Your task to perform on an android device: Add "macbook pro 15 inch" to the cart on walmart Image 0: 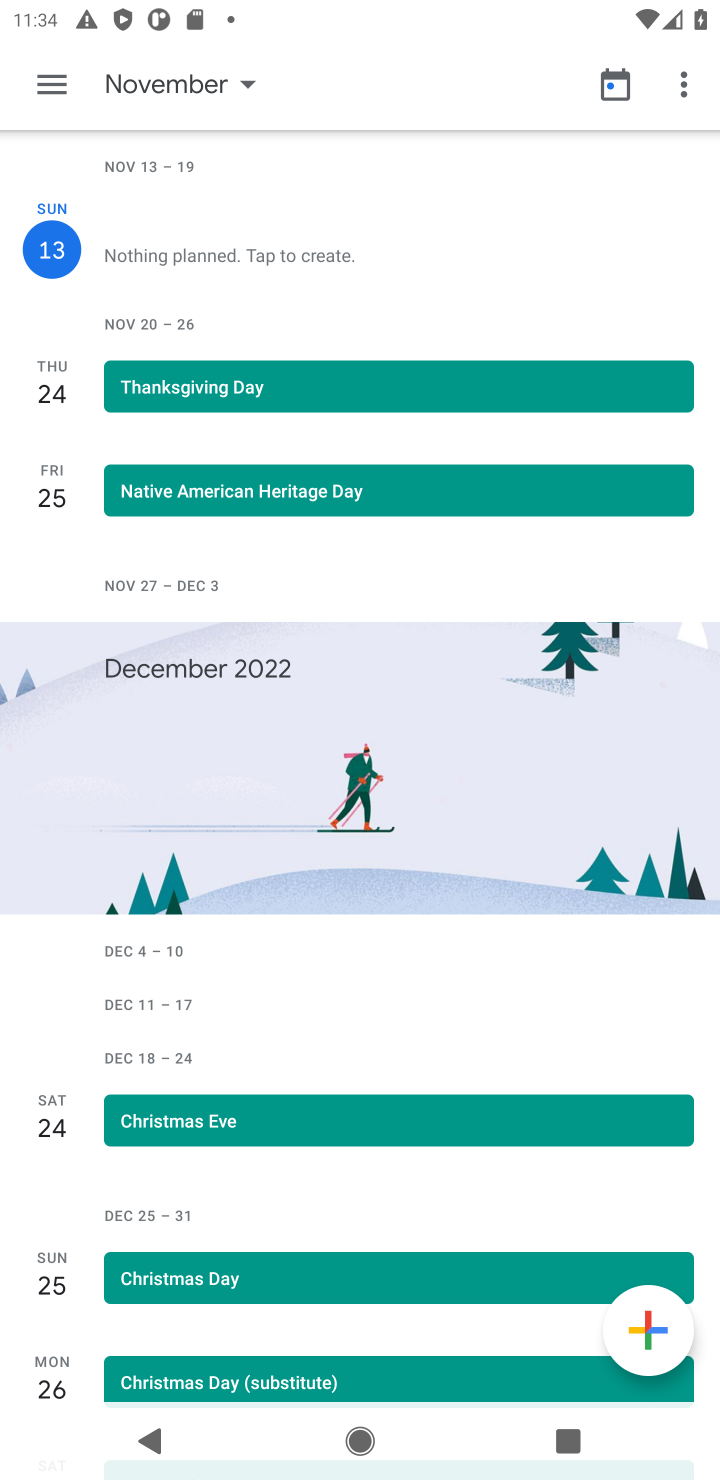
Step 0: press home button
Your task to perform on an android device: Add "macbook pro 15 inch" to the cart on walmart Image 1: 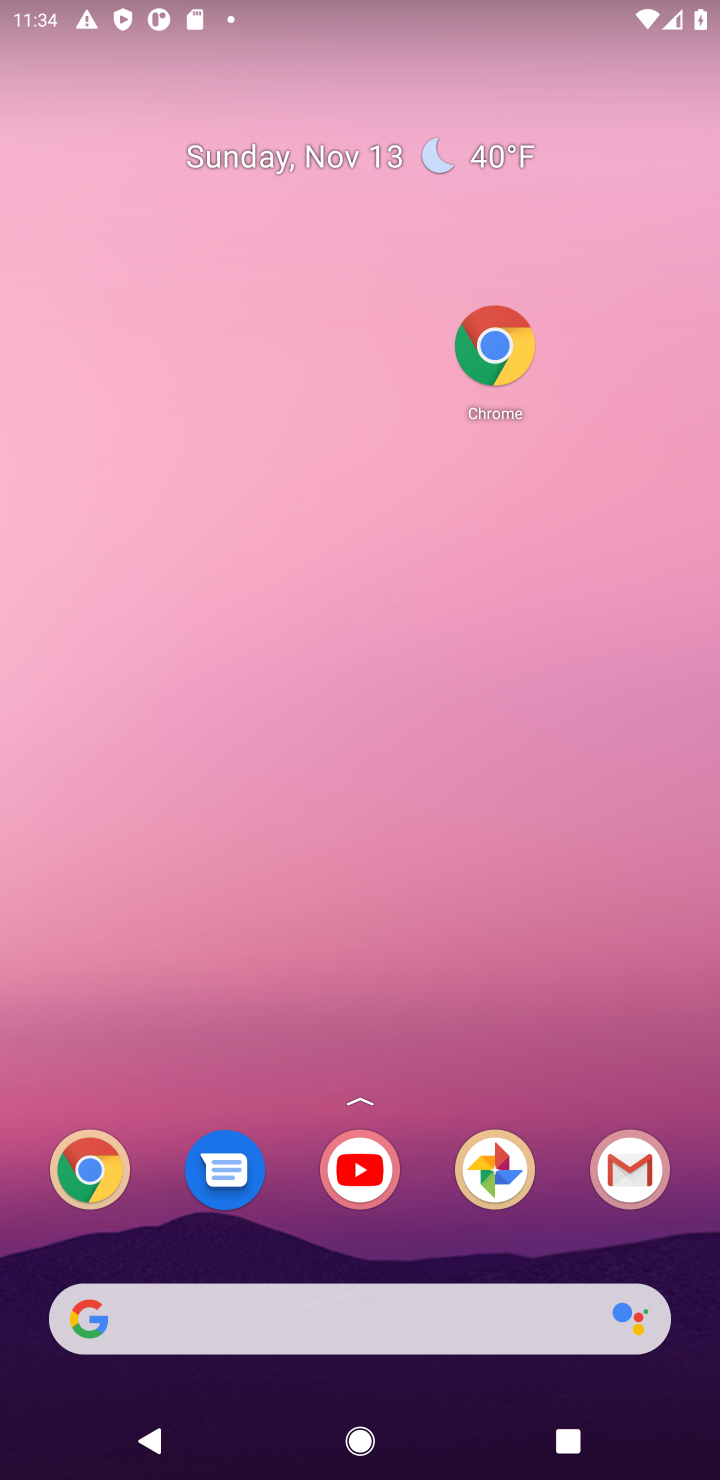
Step 1: drag from (245, 1352) to (194, 181)
Your task to perform on an android device: Add "macbook pro 15 inch" to the cart on walmart Image 2: 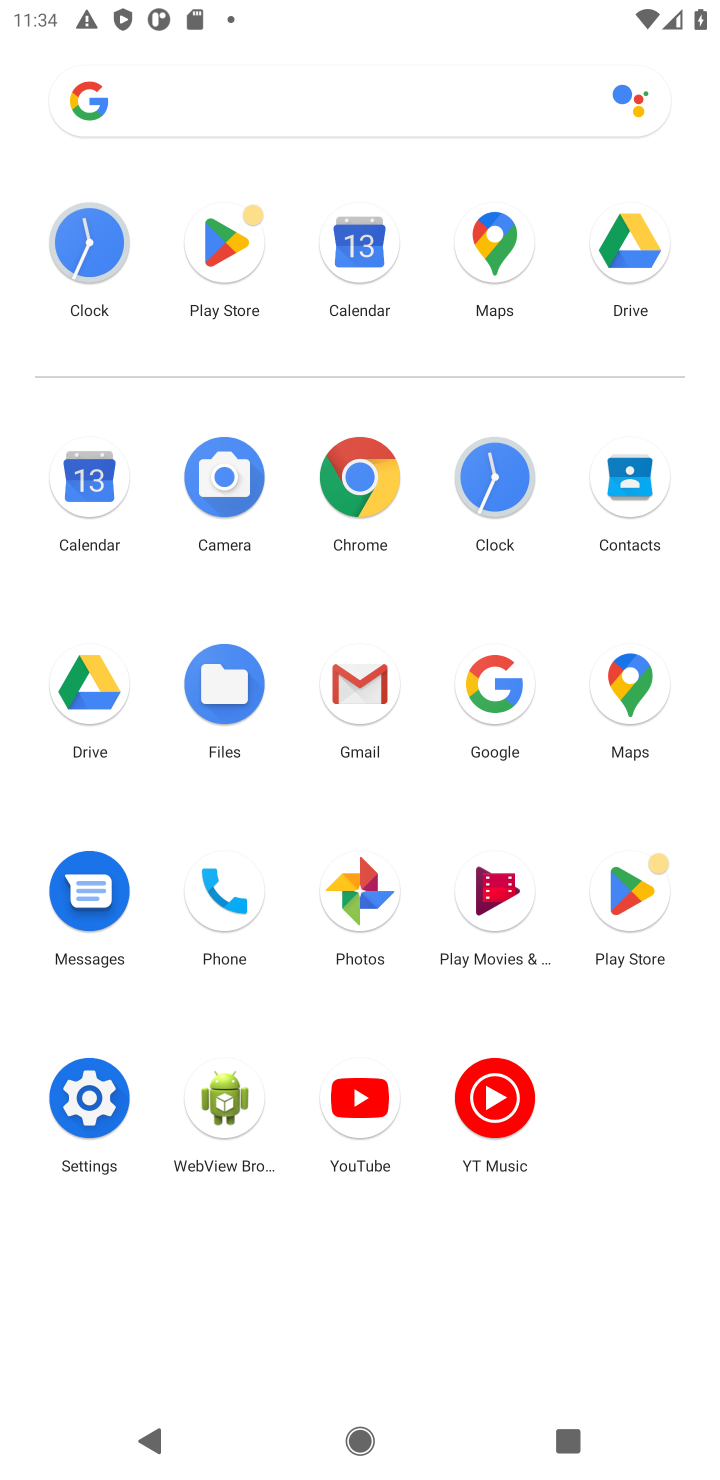
Step 2: click (377, 461)
Your task to perform on an android device: Add "macbook pro 15 inch" to the cart on walmart Image 3: 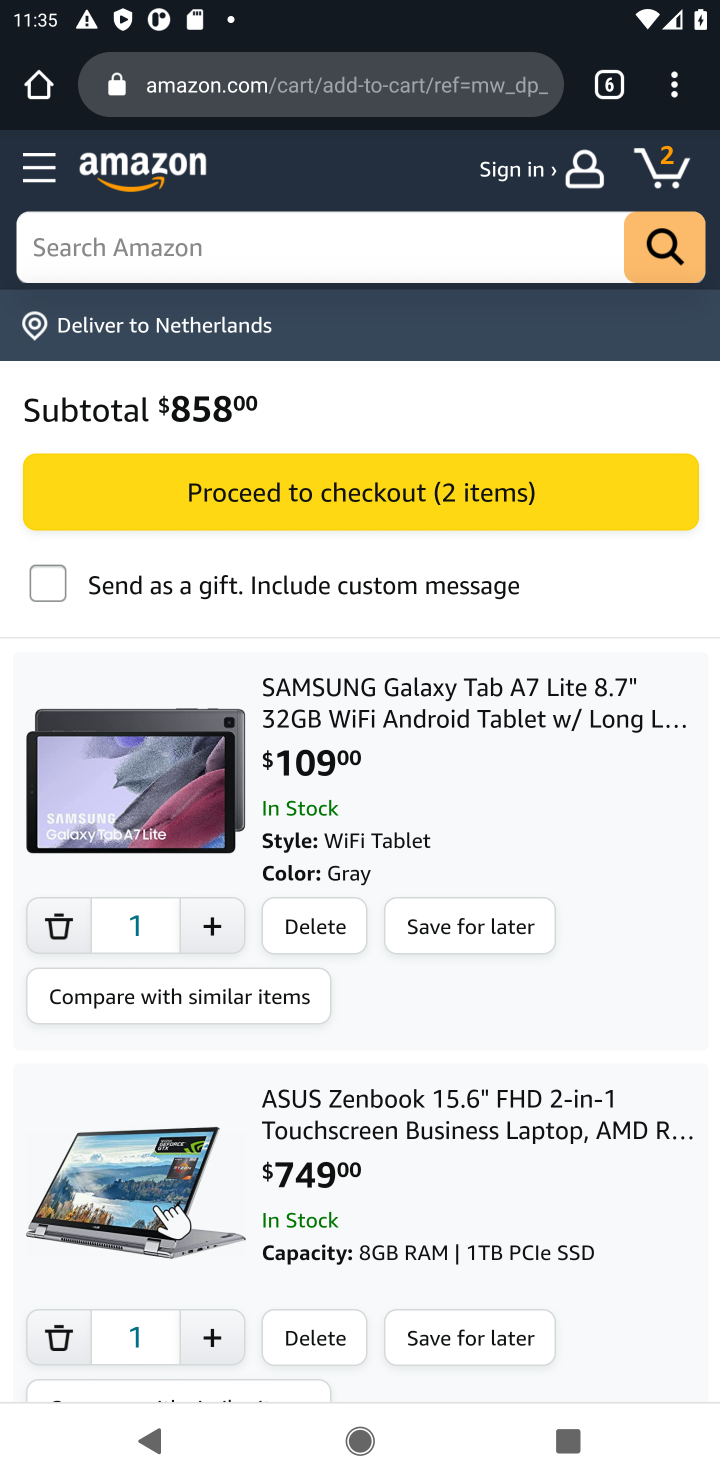
Step 3: click (415, 37)
Your task to perform on an android device: Add "macbook pro 15 inch" to the cart on walmart Image 4: 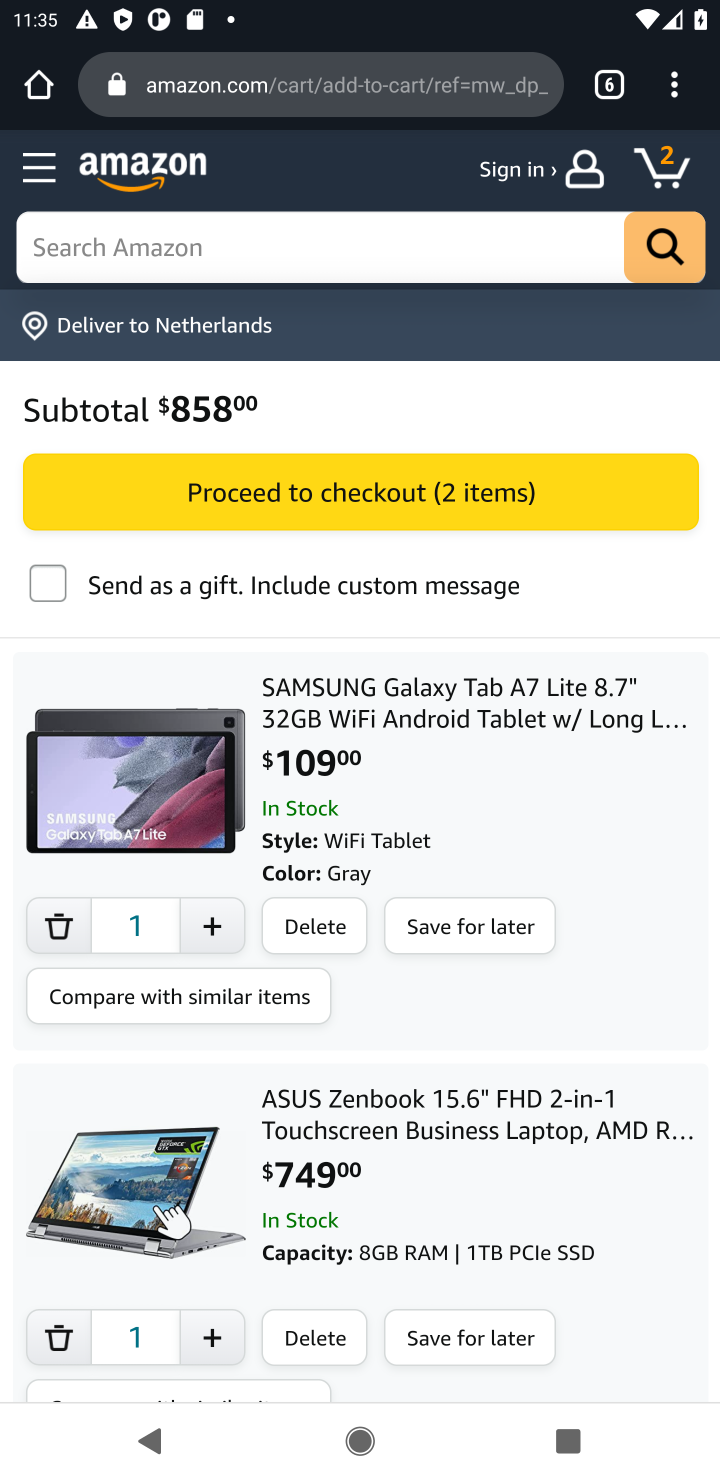
Step 4: click (412, 89)
Your task to perform on an android device: Add "macbook pro 15 inch" to the cart on walmart Image 5: 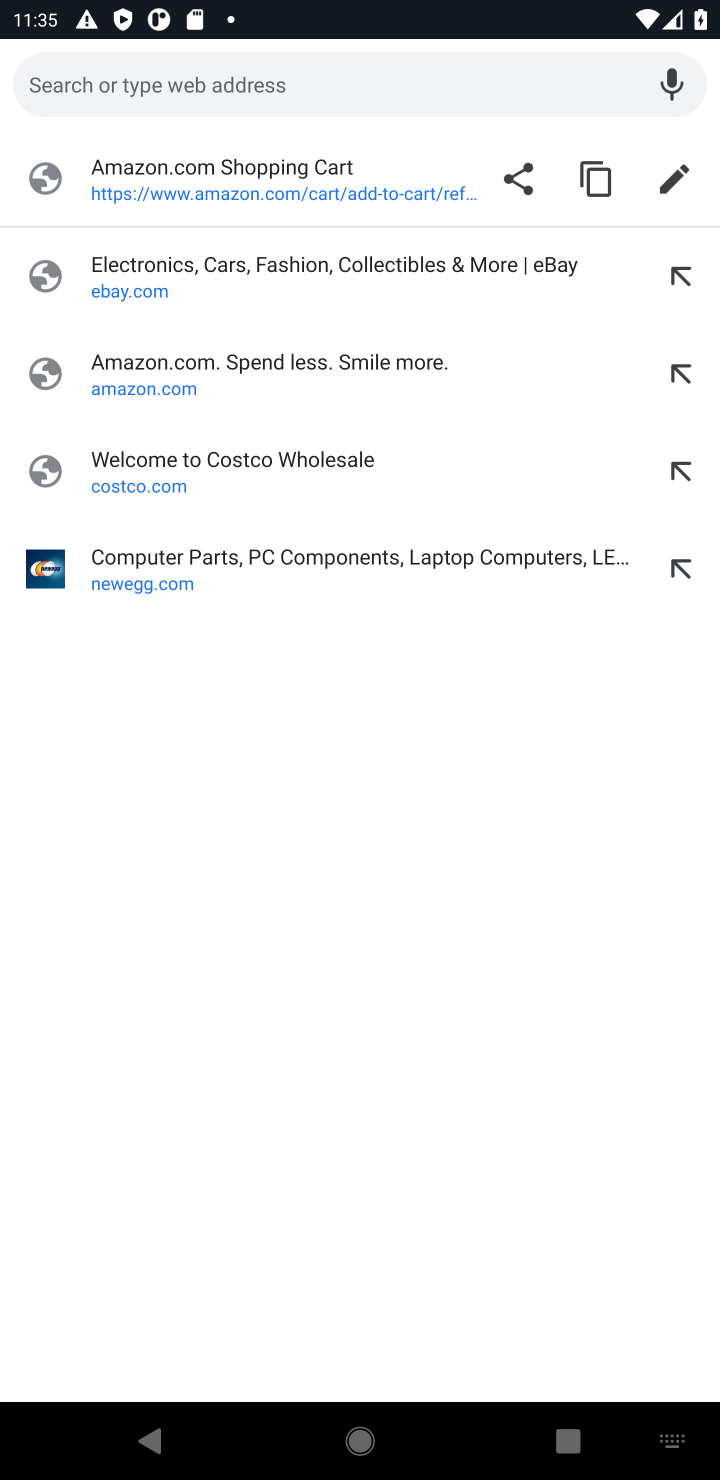
Step 5: type "walmart"
Your task to perform on an android device: Add "macbook pro 15 inch" to the cart on walmart Image 6: 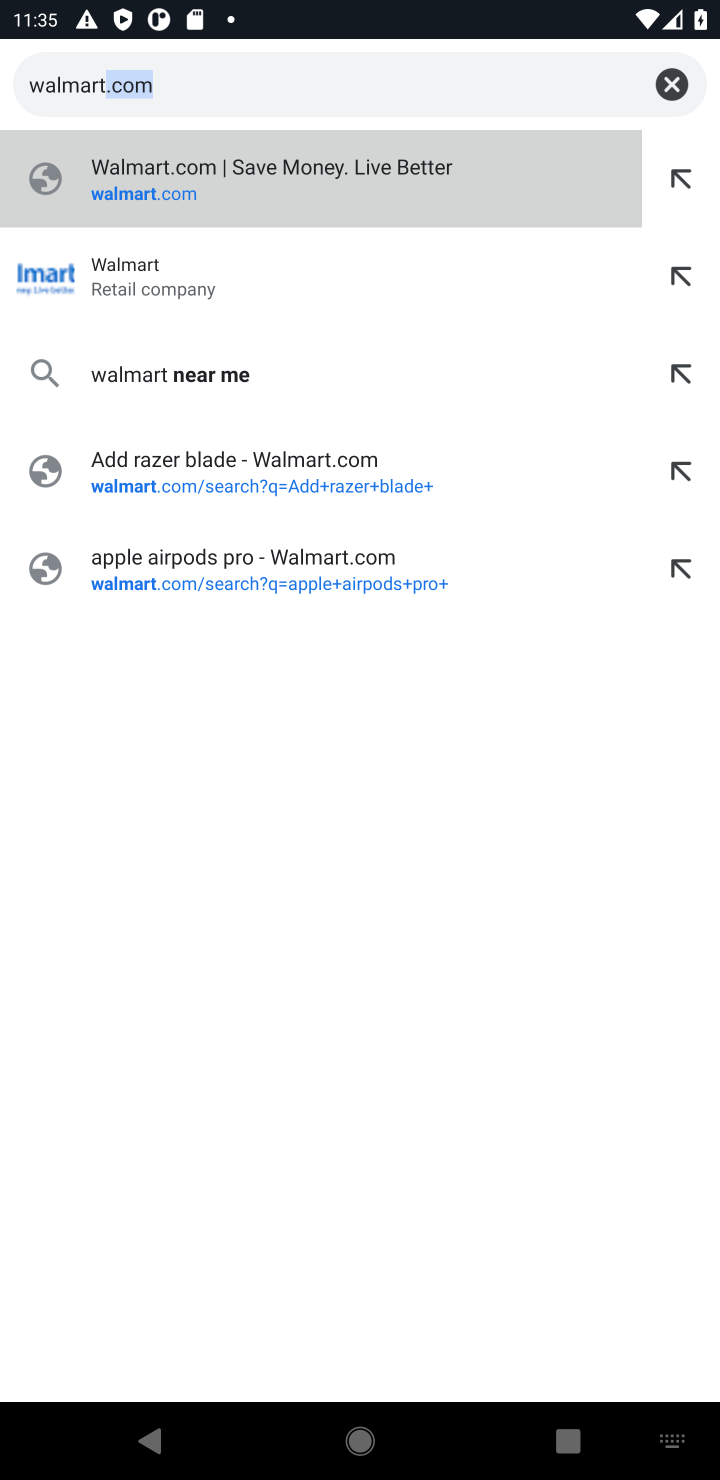
Step 6: press enter
Your task to perform on an android device: Add "macbook pro 15 inch" to the cart on walmart Image 7: 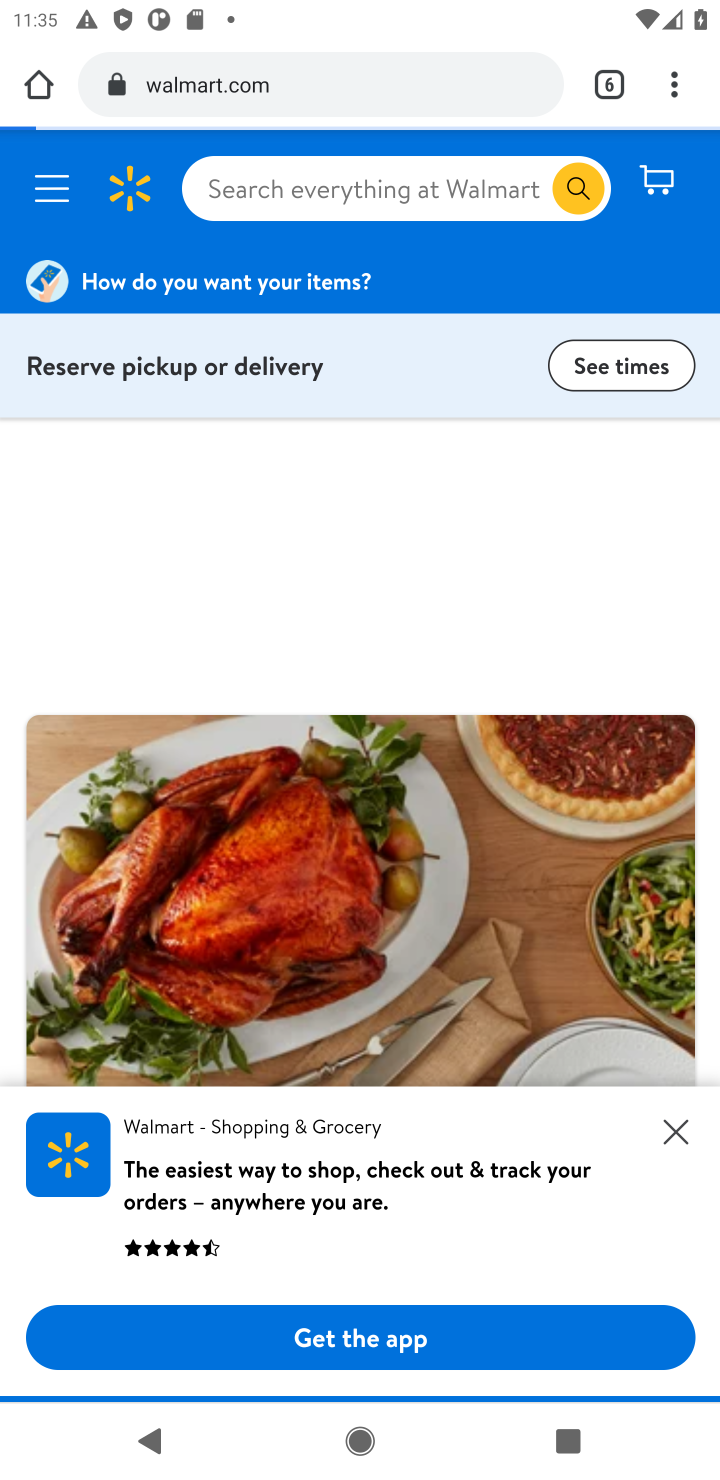
Step 7: click (431, 189)
Your task to perform on an android device: Add "macbook pro 15 inch" to the cart on walmart Image 8: 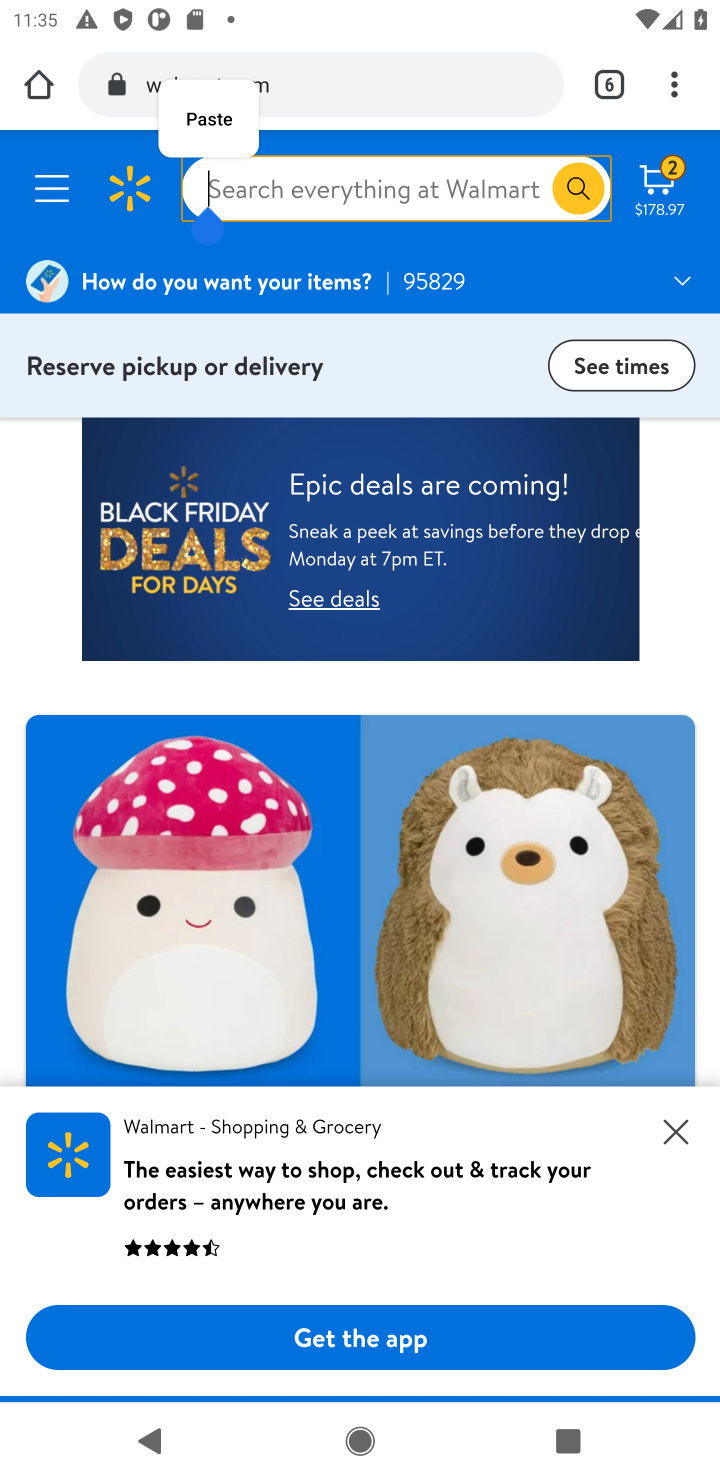
Step 8: type "macbook pro 15 inch"
Your task to perform on an android device: Add "macbook pro 15 inch" to the cart on walmart Image 9: 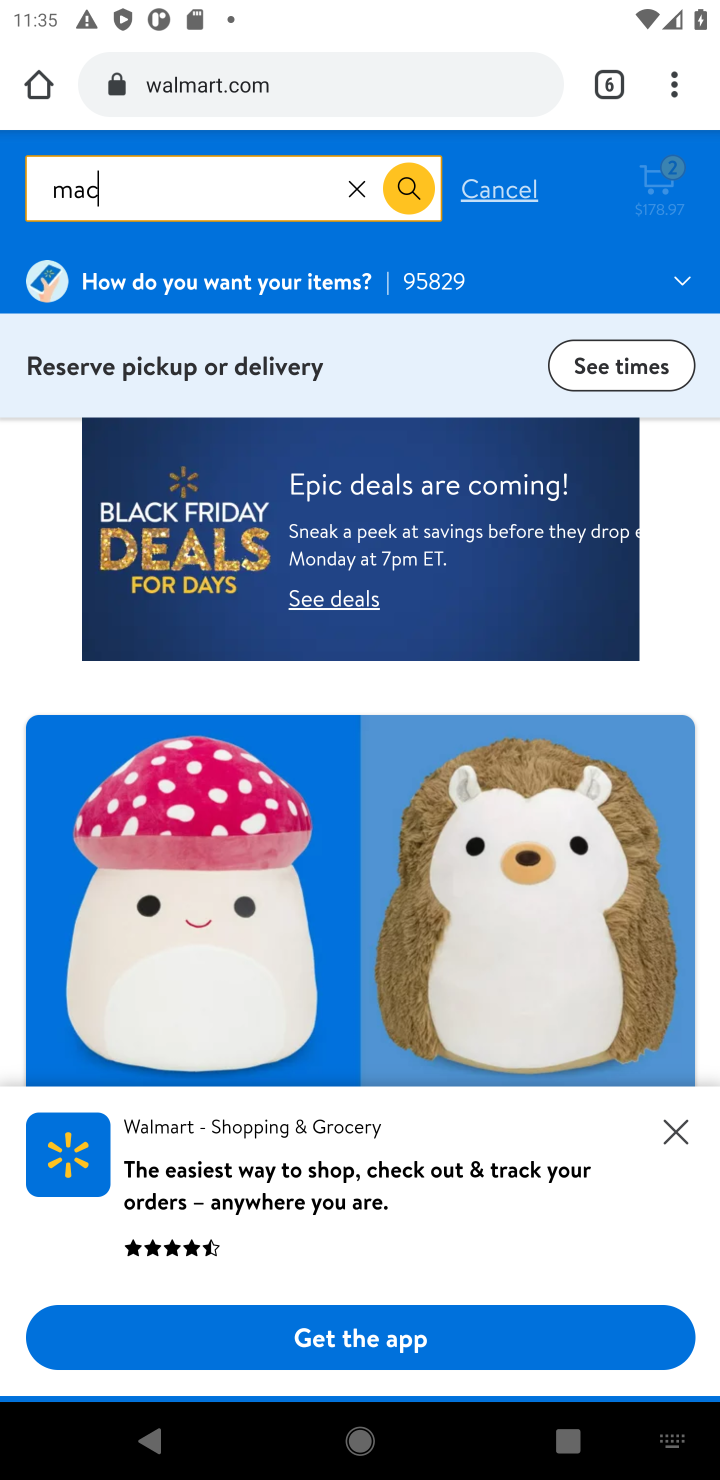
Step 9: press enter
Your task to perform on an android device: Add "macbook pro 15 inch" to the cart on walmart Image 10: 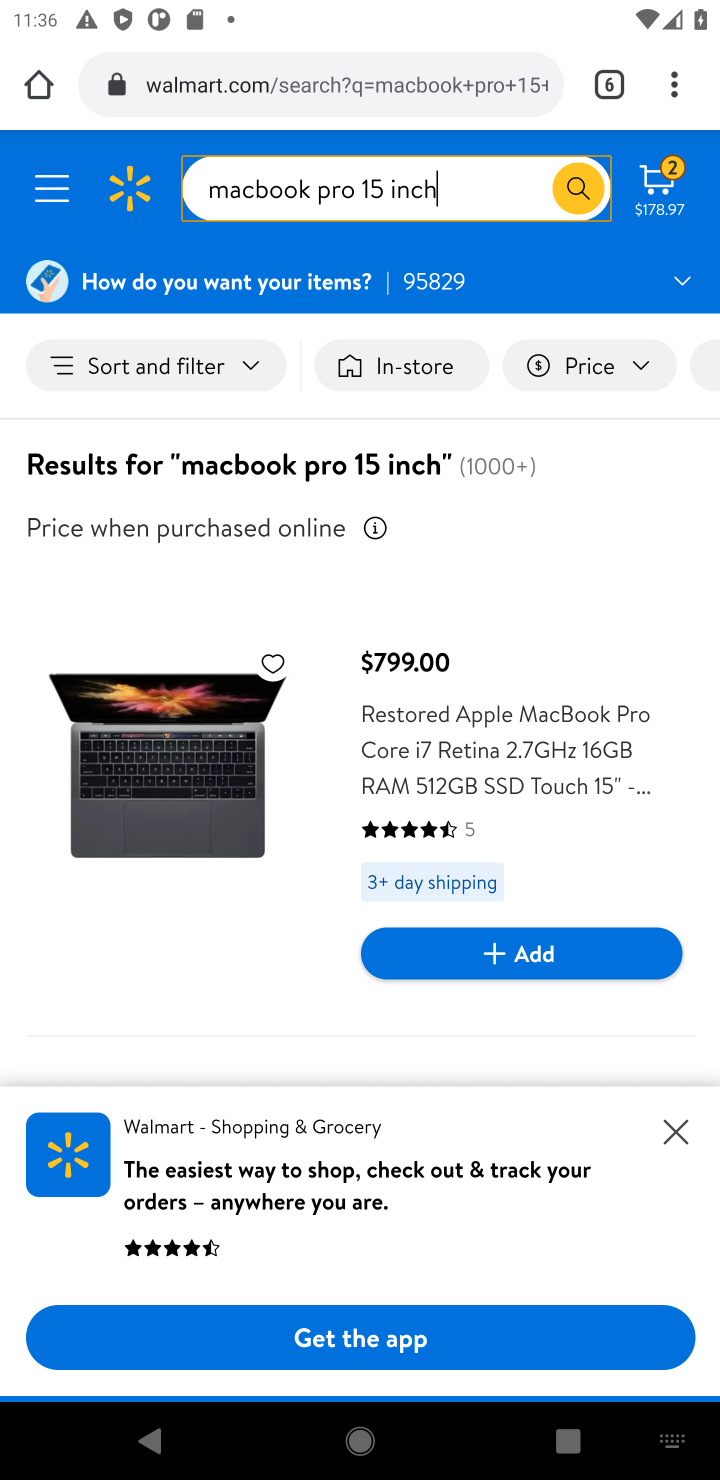
Step 10: click (565, 957)
Your task to perform on an android device: Add "macbook pro 15 inch" to the cart on walmart Image 11: 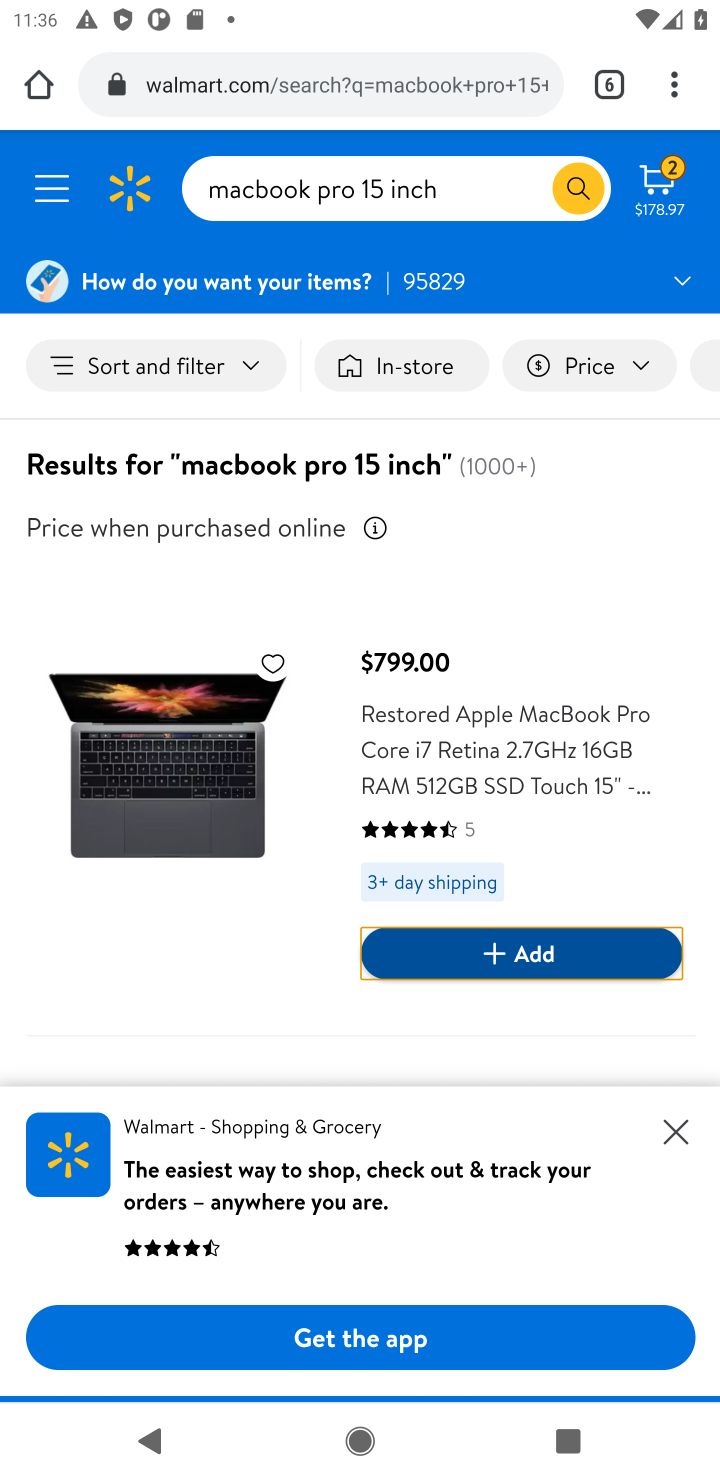
Step 11: click (570, 960)
Your task to perform on an android device: Add "macbook pro 15 inch" to the cart on walmart Image 12: 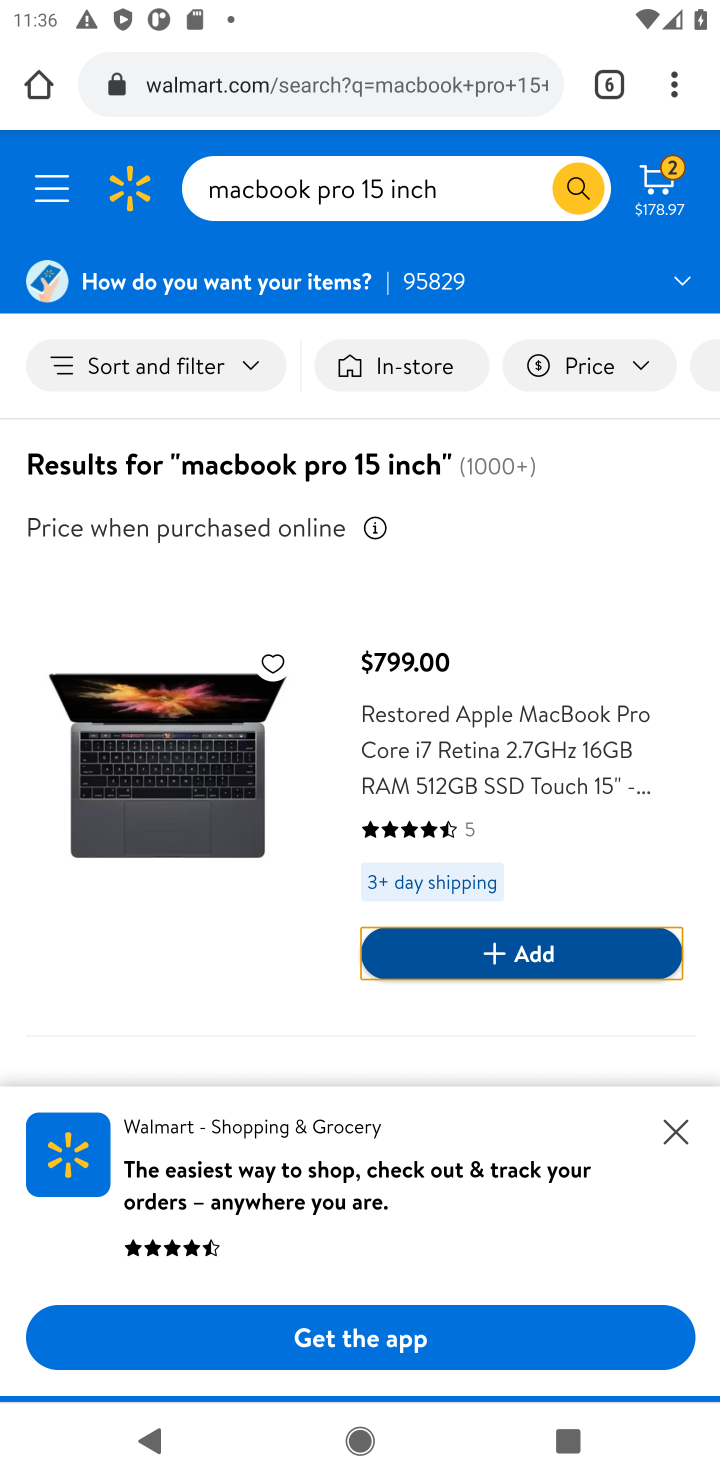
Step 12: task complete